Your task to perform on an android device: turn on javascript in the chrome app Image 0: 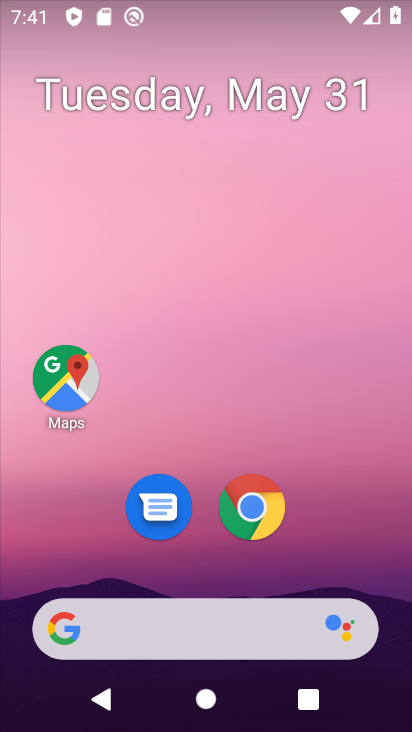
Step 0: click (246, 506)
Your task to perform on an android device: turn on javascript in the chrome app Image 1: 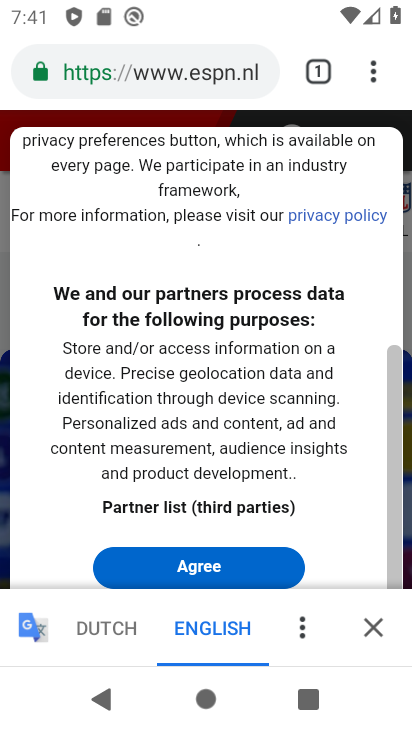
Step 1: click (366, 69)
Your task to perform on an android device: turn on javascript in the chrome app Image 2: 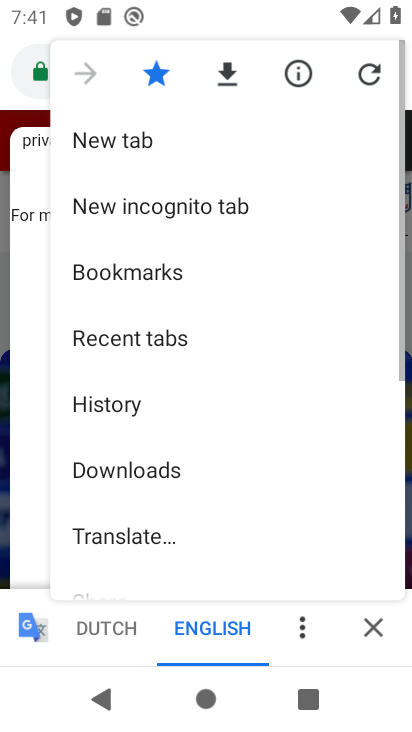
Step 2: drag from (129, 490) to (210, 118)
Your task to perform on an android device: turn on javascript in the chrome app Image 3: 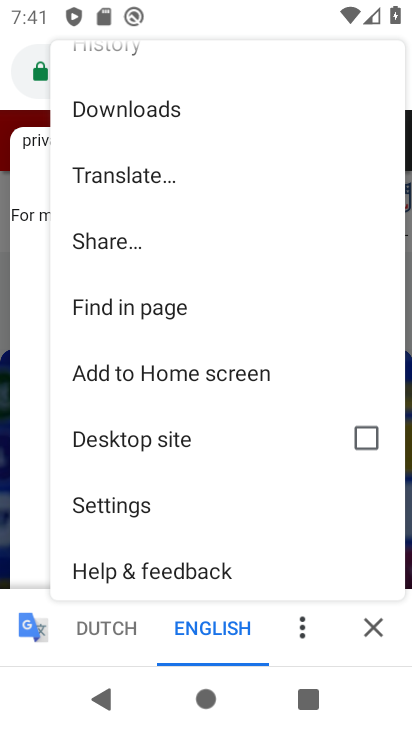
Step 3: click (109, 503)
Your task to perform on an android device: turn on javascript in the chrome app Image 4: 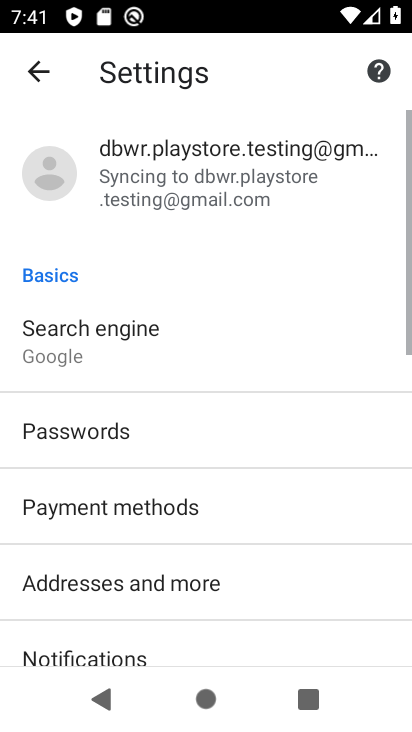
Step 4: drag from (122, 483) to (180, 157)
Your task to perform on an android device: turn on javascript in the chrome app Image 5: 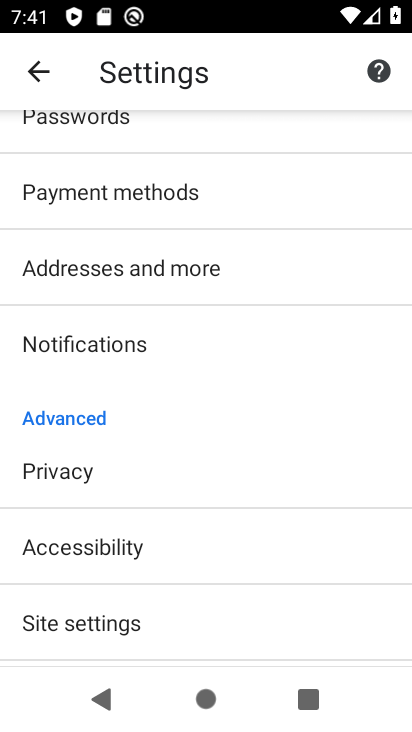
Step 5: drag from (177, 485) to (274, 255)
Your task to perform on an android device: turn on javascript in the chrome app Image 6: 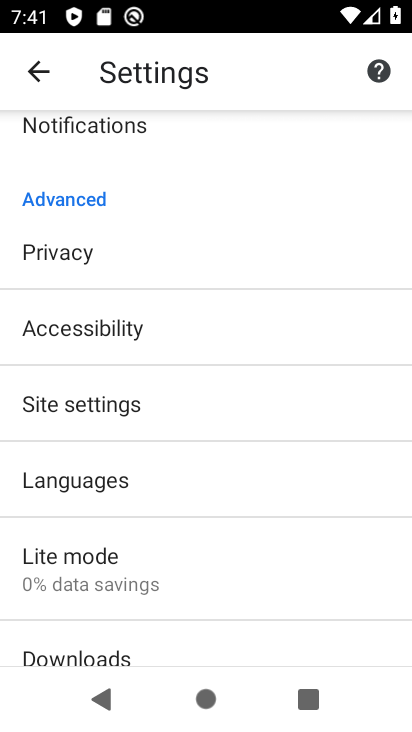
Step 6: click (93, 394)
Your task to perform on an android device: turn on javascript in the chrome app Image 7: 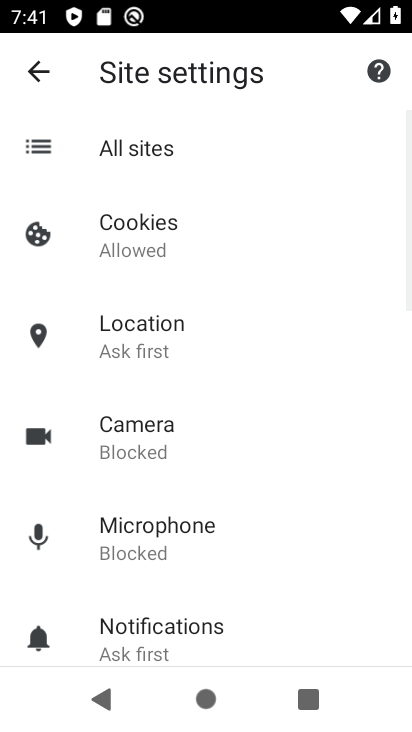
Step 7: drag from (196, 592) to (248, 215)
Your task to perform on an android device: turn on javascript in the chrome app Image 8: 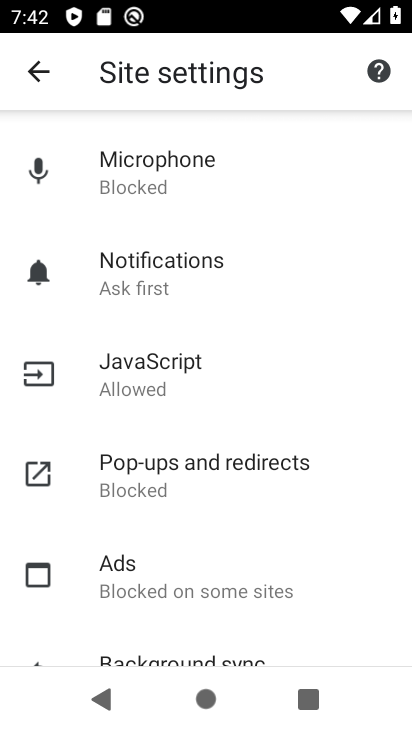
Step 8: click (166, 388)
Your task to perform on an android device: turn on javascript in the chrome app Image 9: 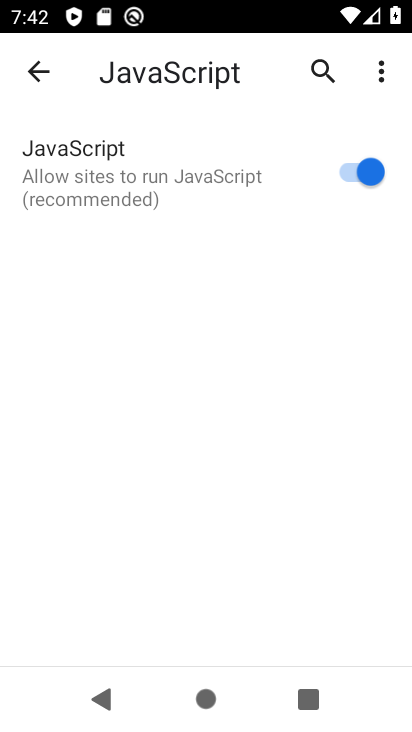
Step 9: task complete